Your task to perform on an android device: make emails show in primary in the gmail app Image 0: 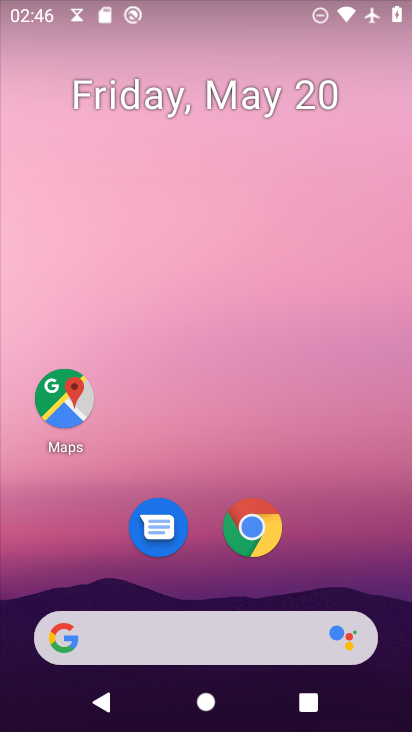
Step 0: press home button
Your task to perform on an android device: make emails show in primary in the gmail app Image 1: 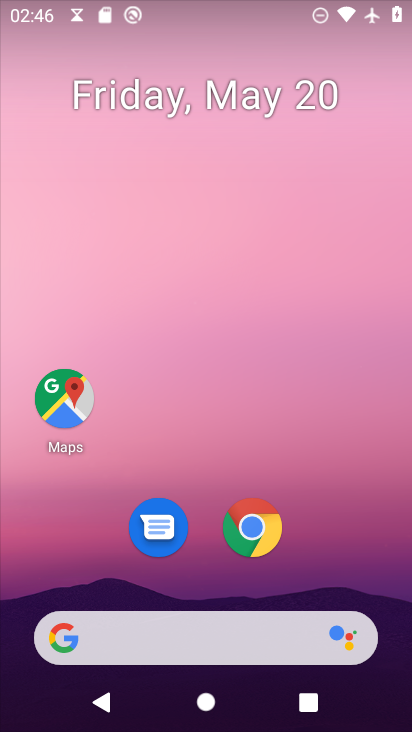
Step 1: drag from (167, 638) to (259, 204)
Your task to perform on an android device: make emails show in primary in the gmail app Image 2: 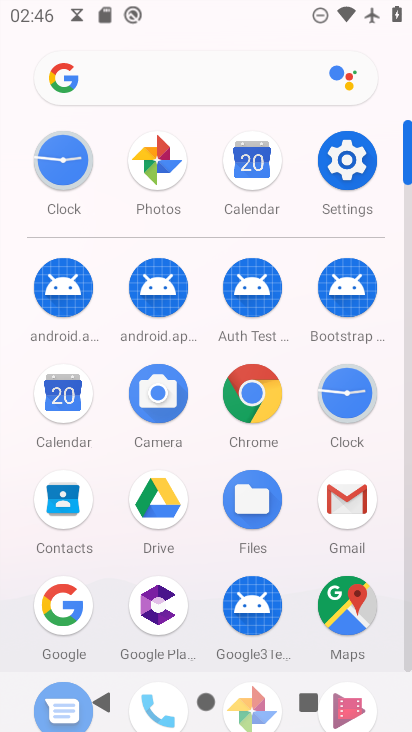
Step 2: click (347, 511)
Your task to perform on an android device: make emails show in primary in the gmail app Image 3: 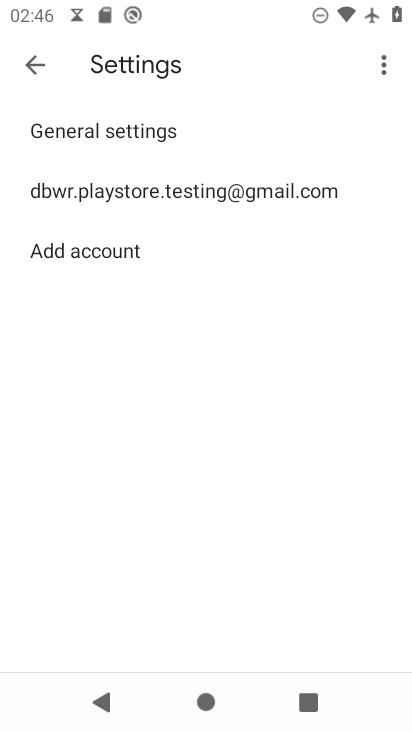
Step 3: click (228, 195)
Your task to perform on an android device: make emails show in primary in the gmail app Image 4: 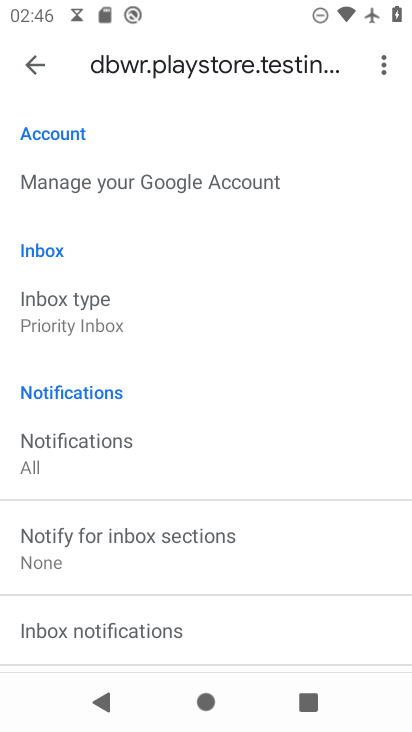
Step 4: task complete